Your task to perform on an android device: Open calendar and show me the first week of next month Image 0: 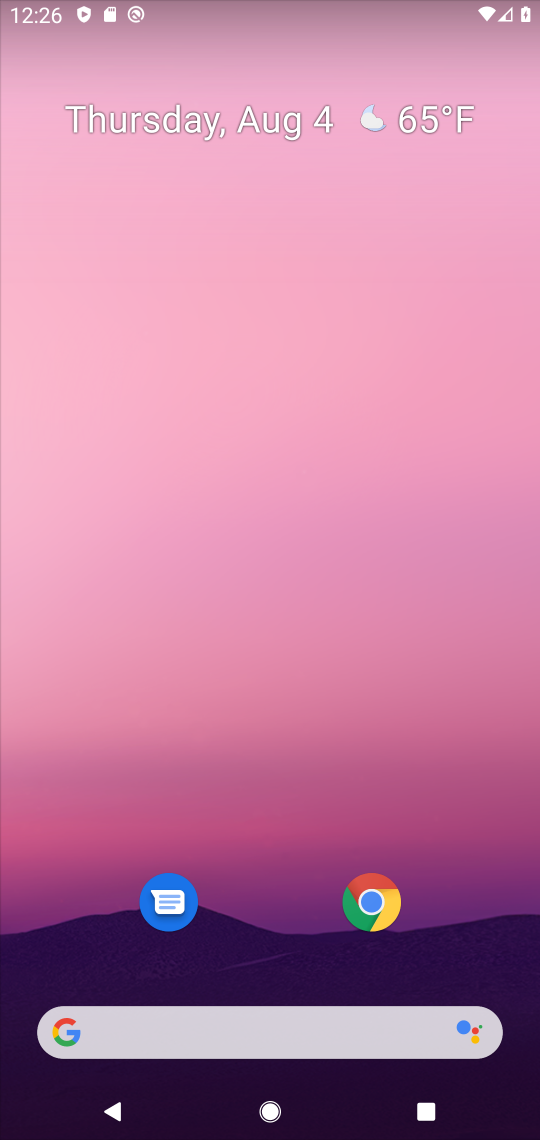
Step 0: drag from (465, 669) to (460, 201)
Your task to perform on an android device: Open calendar and show me the first week of next month Image 1: 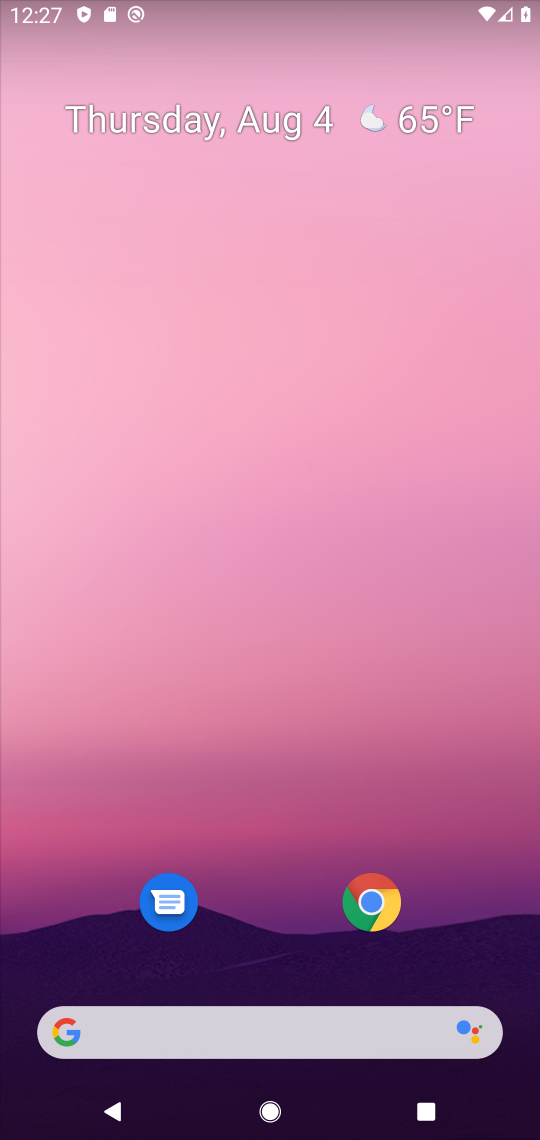
Step 1: drag from (513, 967) to (415, 205)
Your task to perform on an android device: Open calendar and show me the first week of next month Image 2: 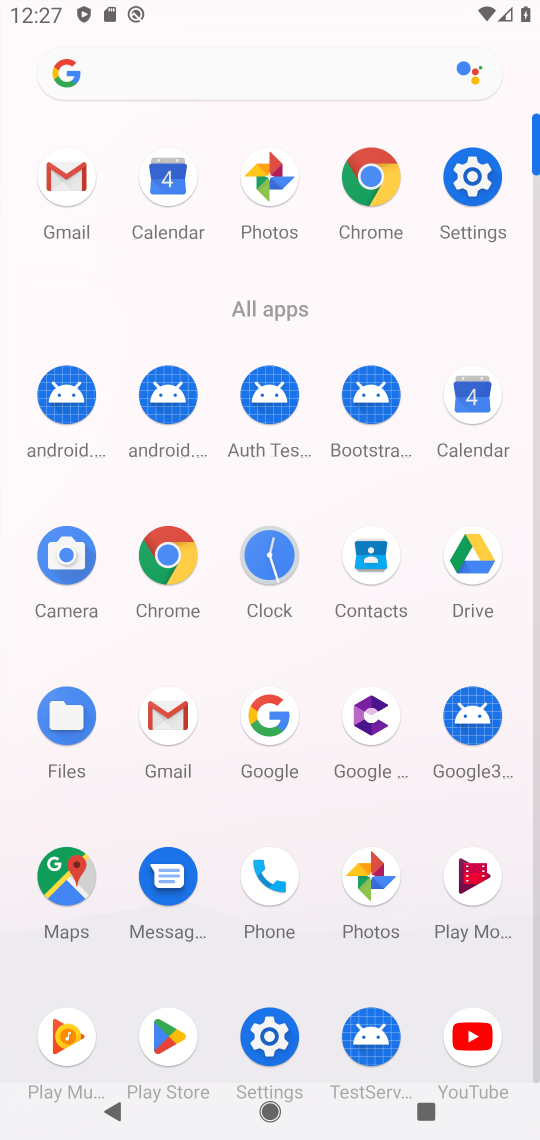
Step 2: click (470, 396)
Your task to perform on an android device: Open calendar and show me the first week of next month Image 3: 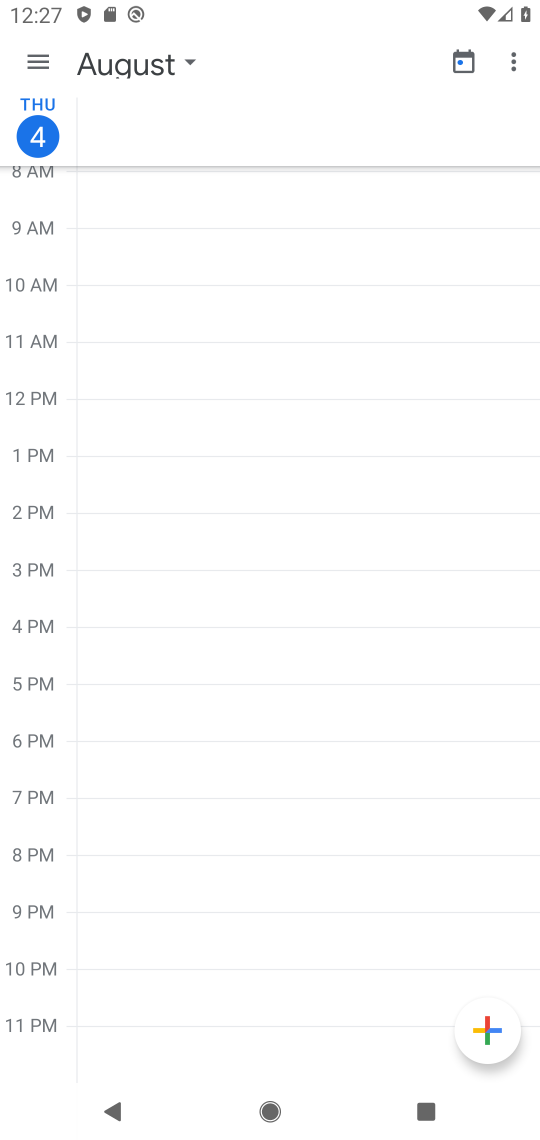
Step 3: click (35, 58)
Your task to perform on an android device: Open calendar and show me the first week of next month Image 4: 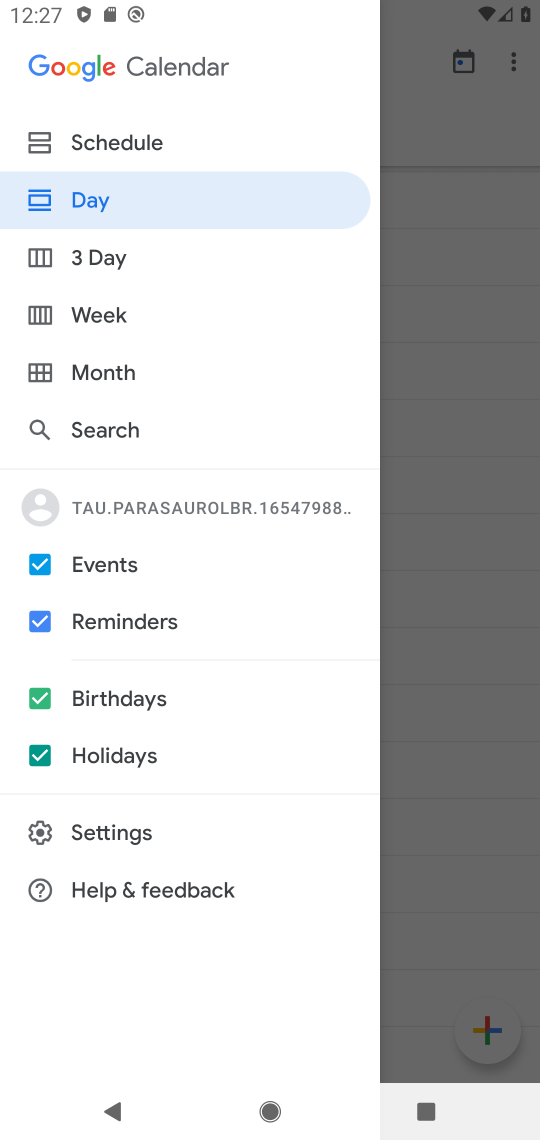
Step 4: click (101, 310)
Your task to perform on an android device: Open calendar and show me the first week of next month Image 5: 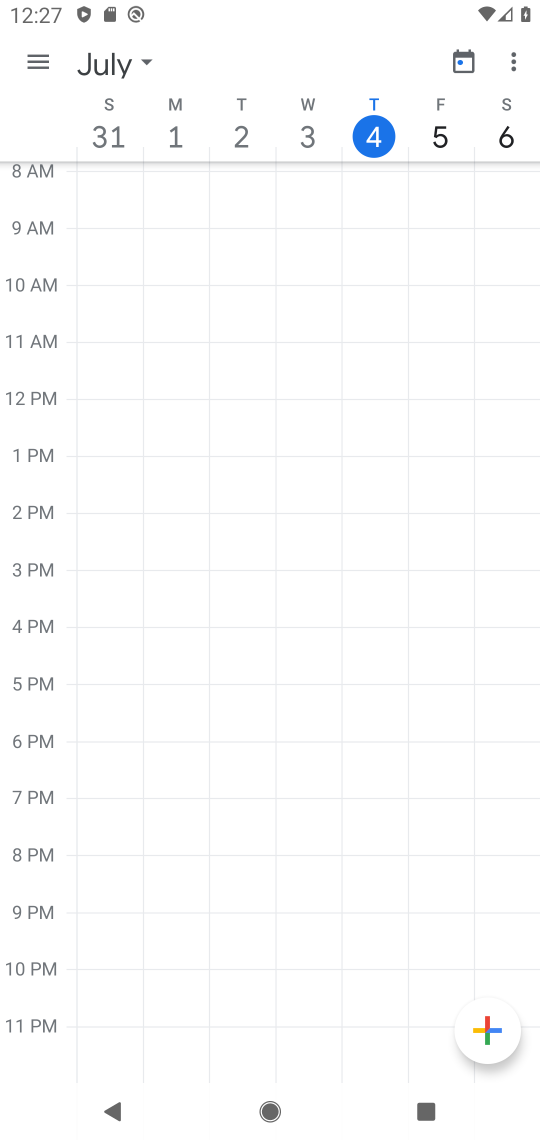
Step 5: click (143, 64)
Your task to perform on an android device: Open calendar and show me the first week of next month Image 6: 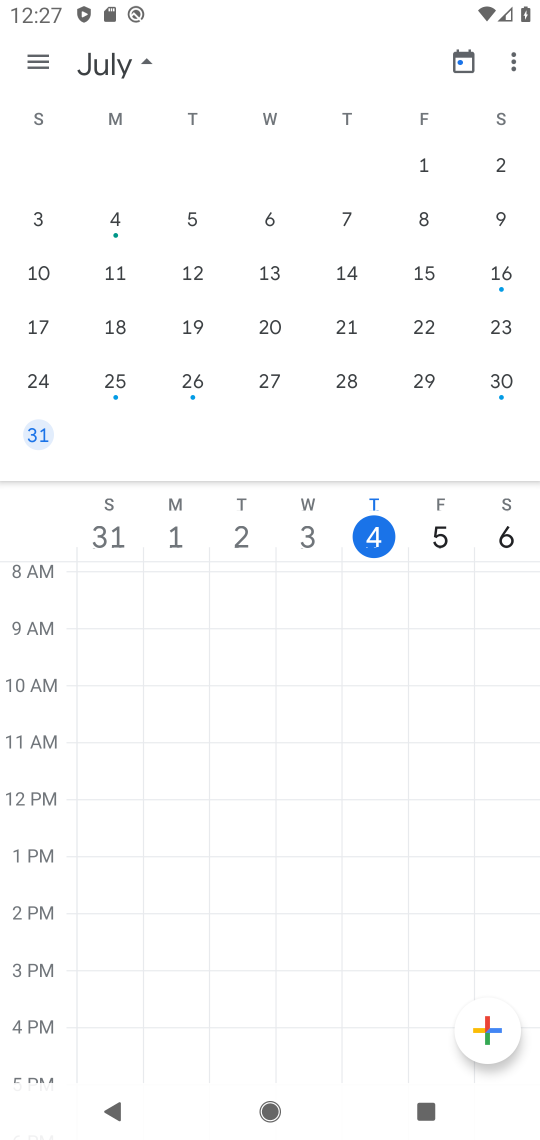
Step 6: drag from (503, 336) to (1, 260)
Your task to perform on an android device: Open calendar and show me the first week of next month Image 7: 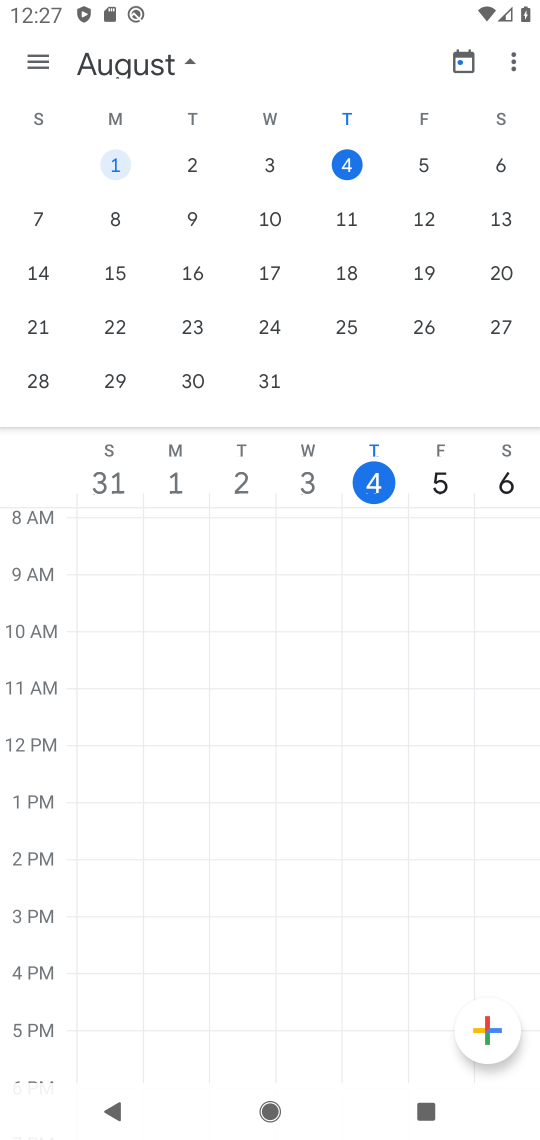
Step 7: click (36, 219)
Your task to perform on an android device: Open calendar and show me the first week of next month Image 8: 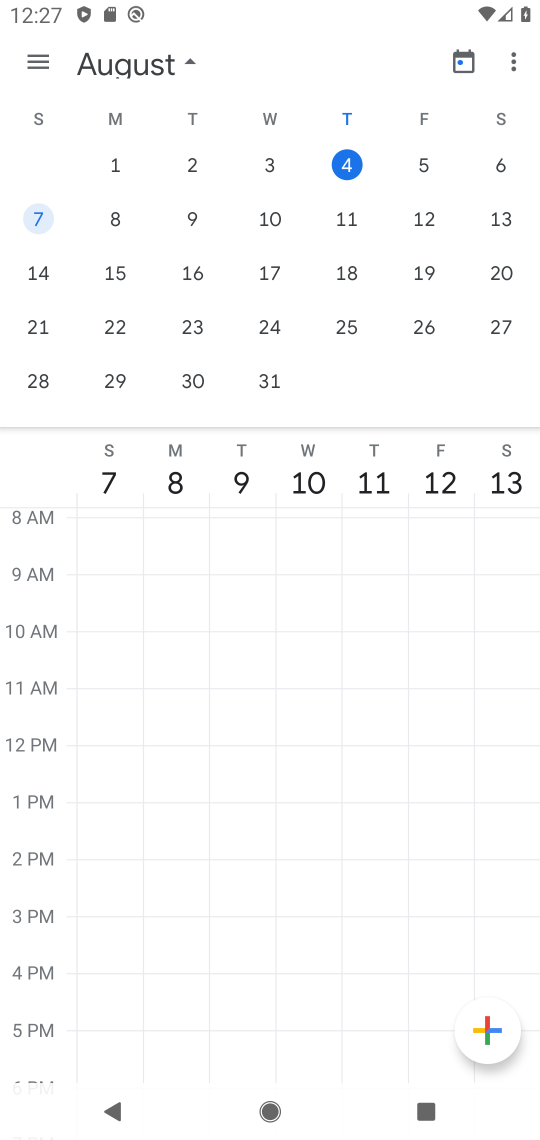
Step 8: task complete